Your task to perform on an android device: check the backup settings in the google photos Image 0: 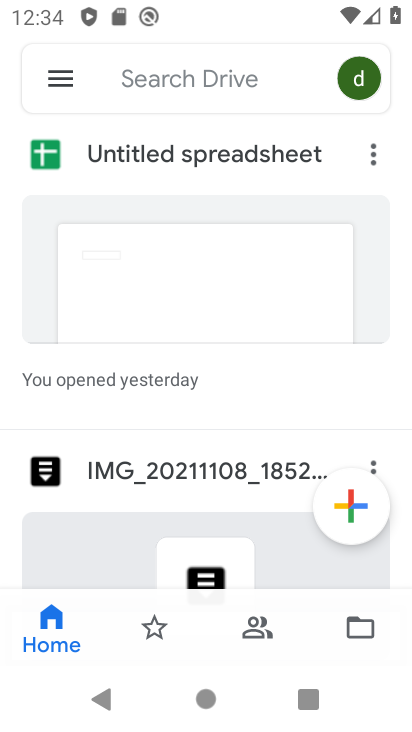
Step 0: press home button
Your task to perform on an android device: check the backup settings in the google photos Image 1: 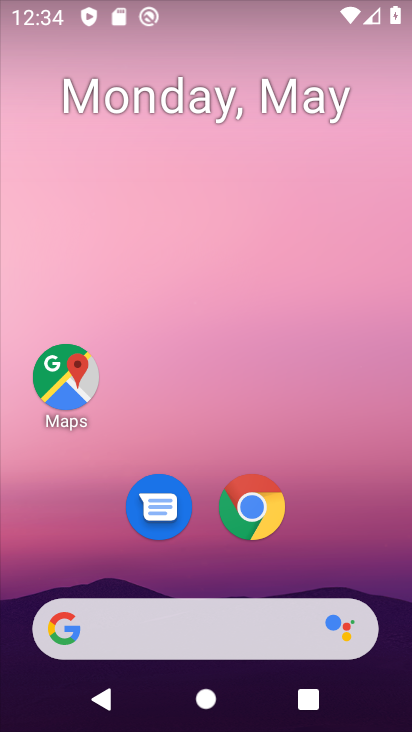
Step 1: drag from (225, 719) to (228, 137)
Your task to perform on an android device: check the backup settings in the google photos Image 2: 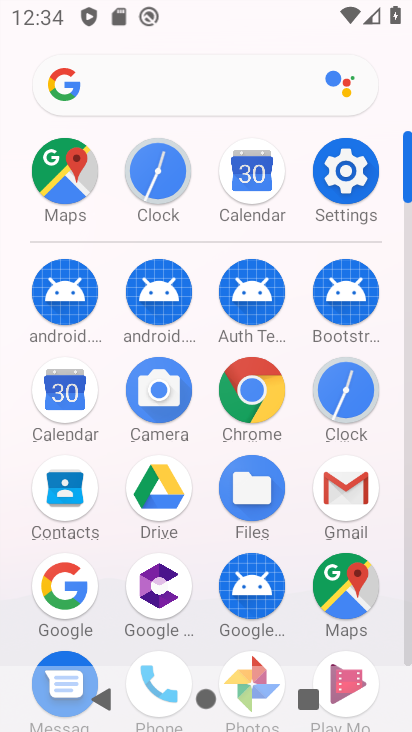
Step 2: click (253, 663)
Your task to perform on an android device: check the backup settings in the google photos Image 3: 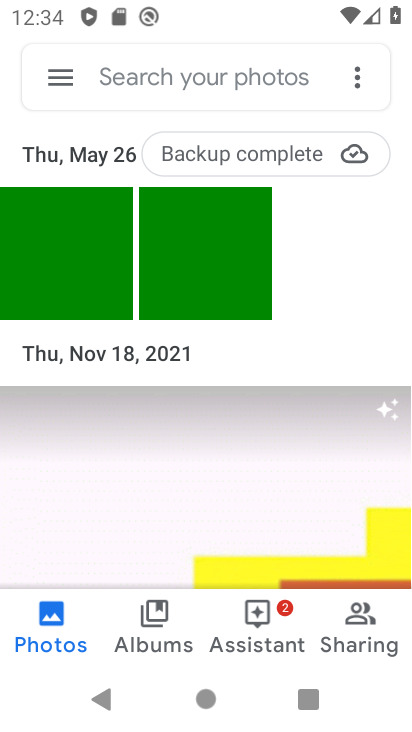
Step 3: click (63, 71)
Your task to perform on an android device: check the backup settings in the google photos Image 4: 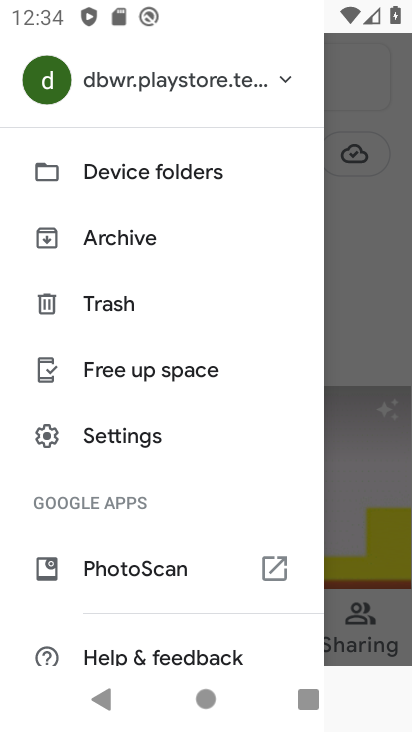
Step 4: drag from (138, 621) to (143, 254)
Your task to perform on an android device: check the backup settings in the google photos Image 5: 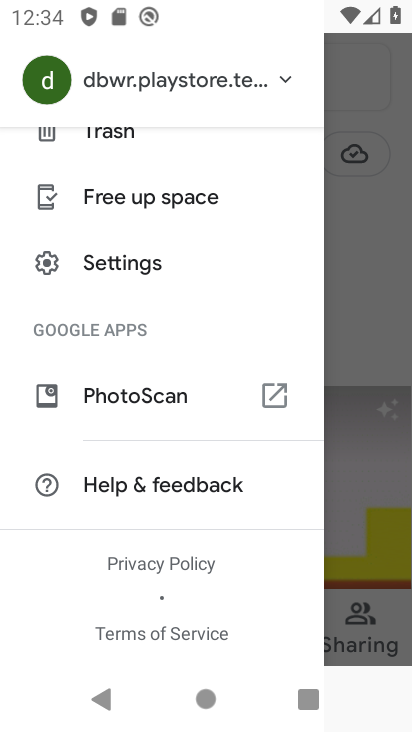
Step 5: drag from (189, 152) to (190, 600)
Your task to perform on an android device: check the backup settings in the google photos Image 6: 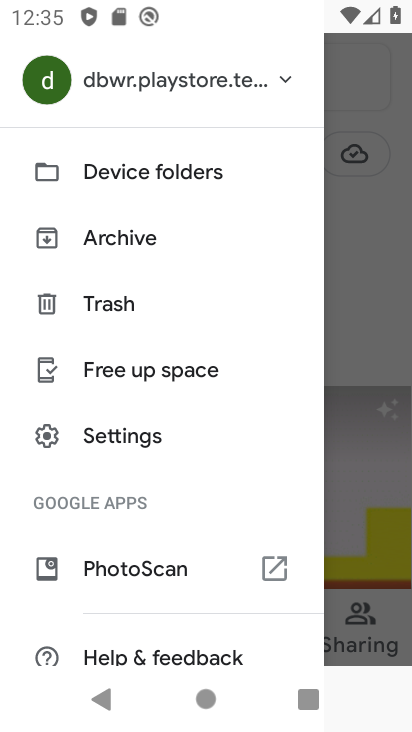
Step 6: drag from (192, 164) to (169, 601)
Your task to perform on an android device: check the backup settings in the google photos Image 7: 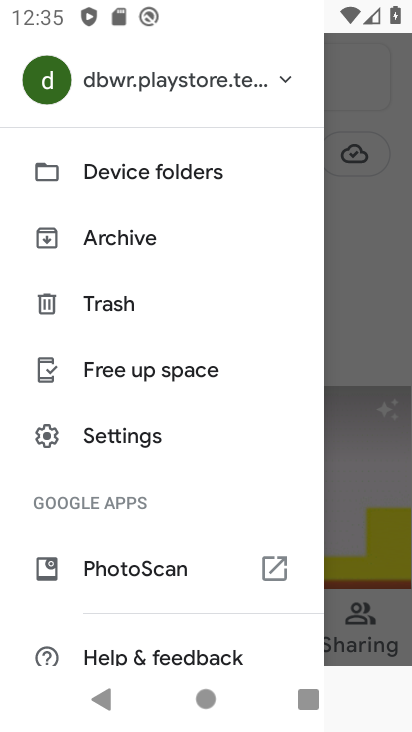
Step 7: click (121, 435)
Your task to perform on an android device: check the backup settings in the google photos Image 8: 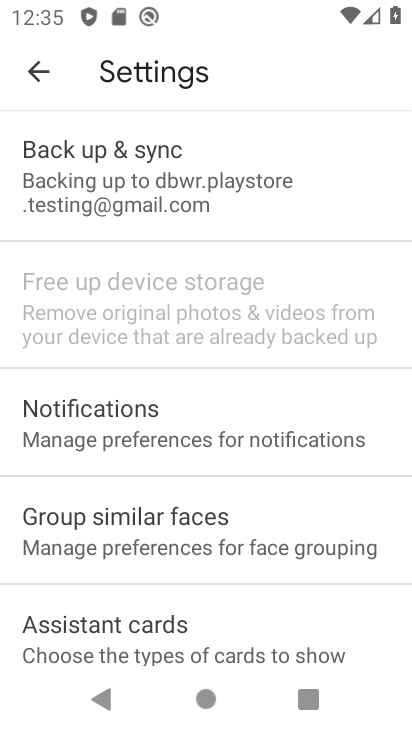
Step 8: click (123, 174)
Your task to perform on an android device: check the backup settings in the google photos Image 9: 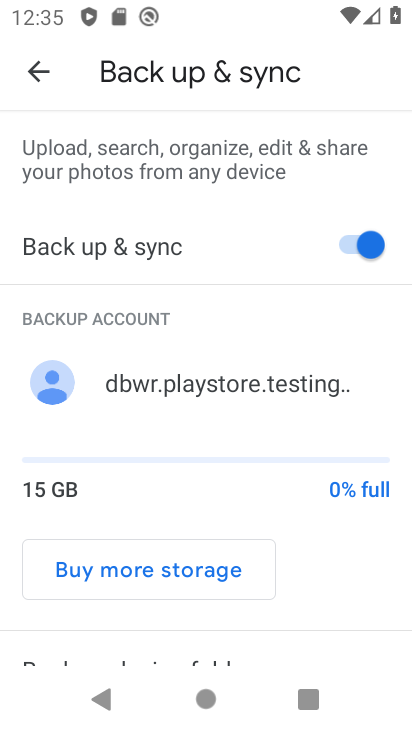
Step 9: task complete